Your task to perform on an android device: Open Wikipedia Image 0: 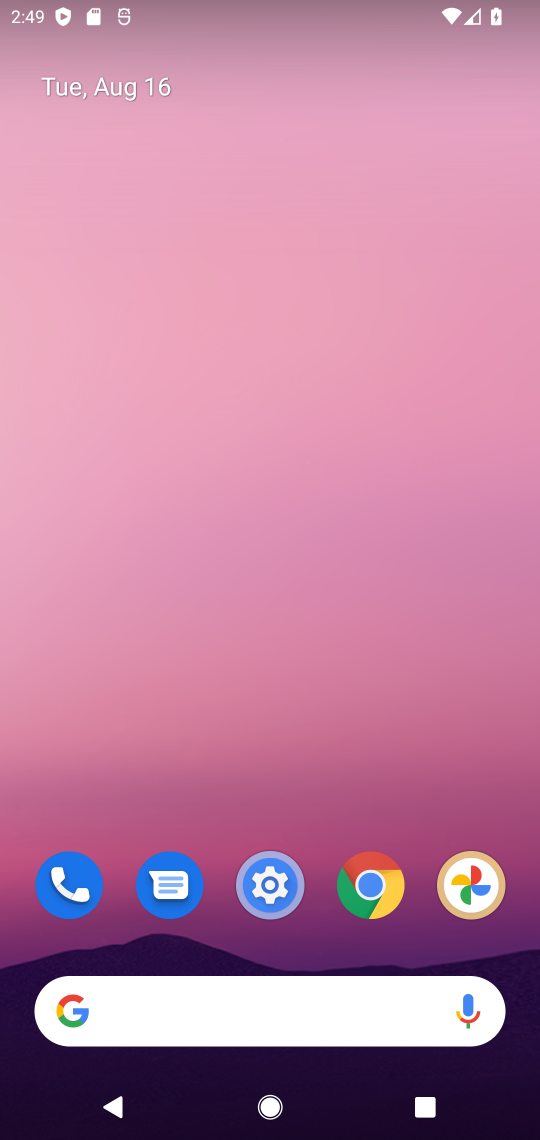
Step 0: drag from (337, 812) to (355, 147)
Your task to perform on an android device: Open Wikipedia Image 1: 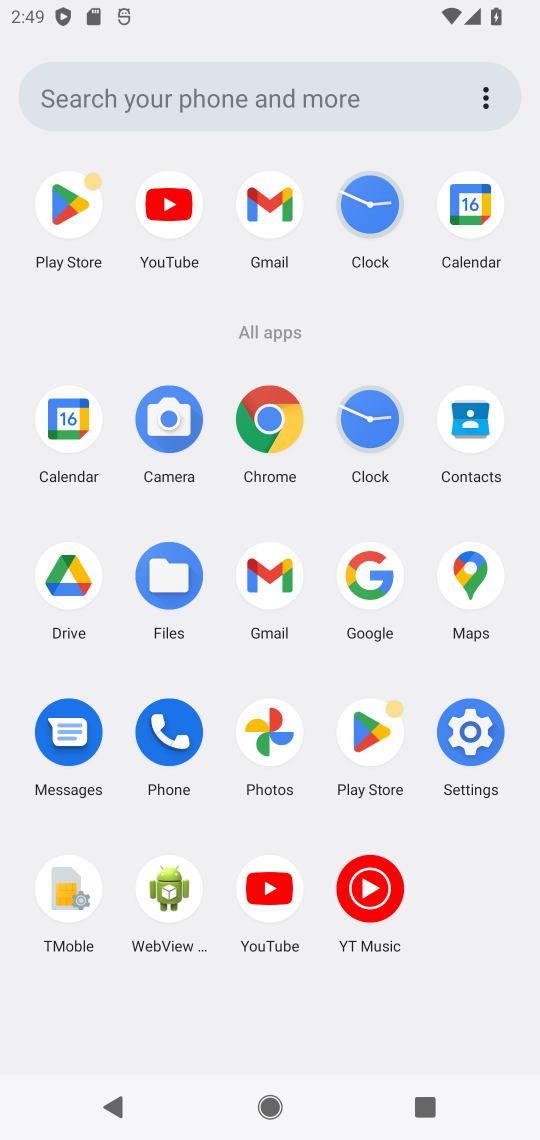
Step 1: click (263, 421)
Your task to perform on an android device: Open Wikipedia Image 2: 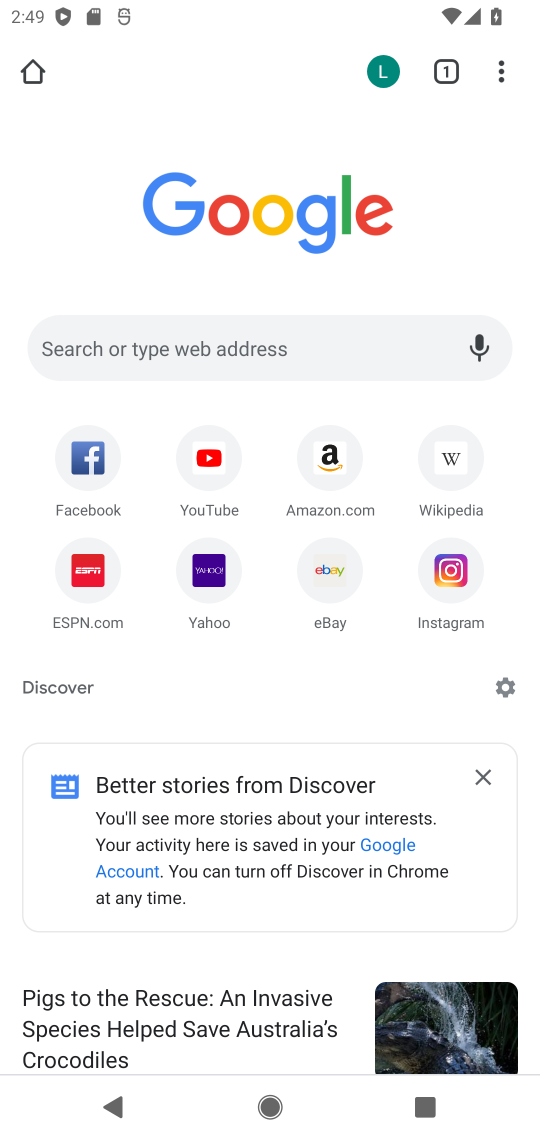
Step 2: click (446, 453)
Your task to perform on an android device: Open Wikipedia Image 3: 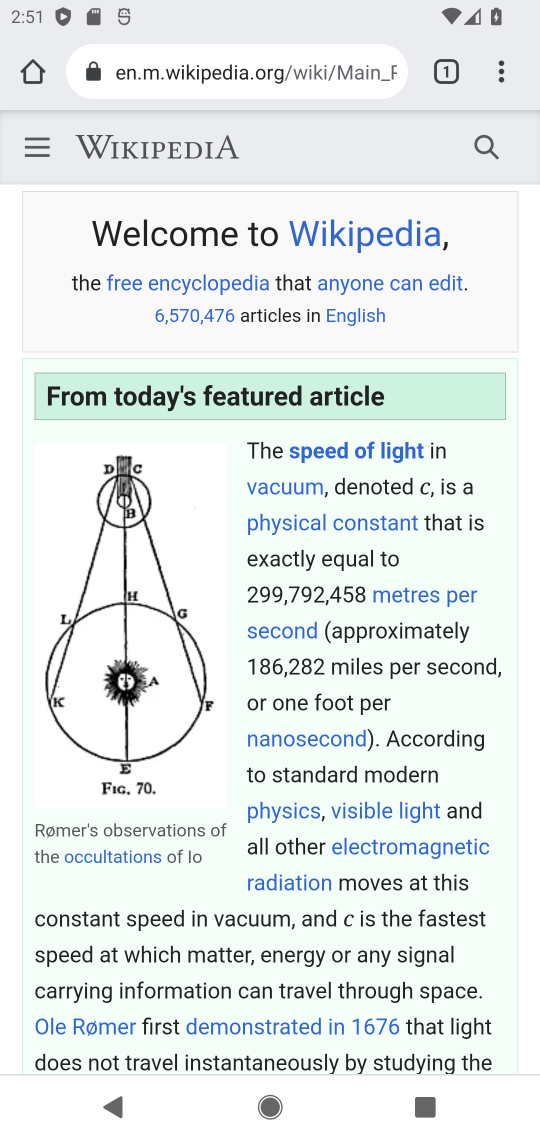
Step 3: task complete